Your task to perform on an android device: Show me recent news Image 0: 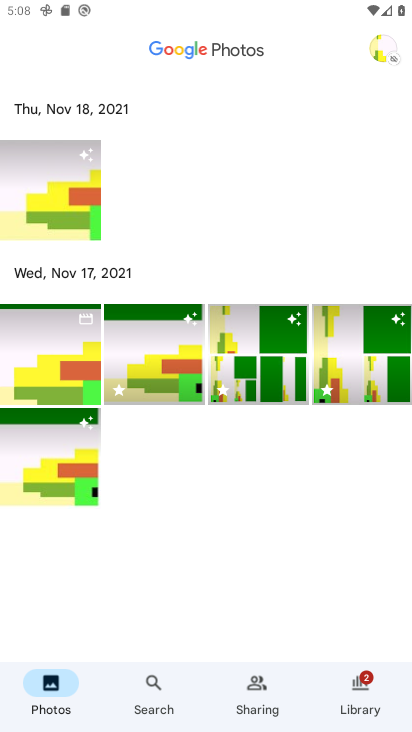
Step 0: press back button
Your task to perform on an android device: Show me recent news Image 1: 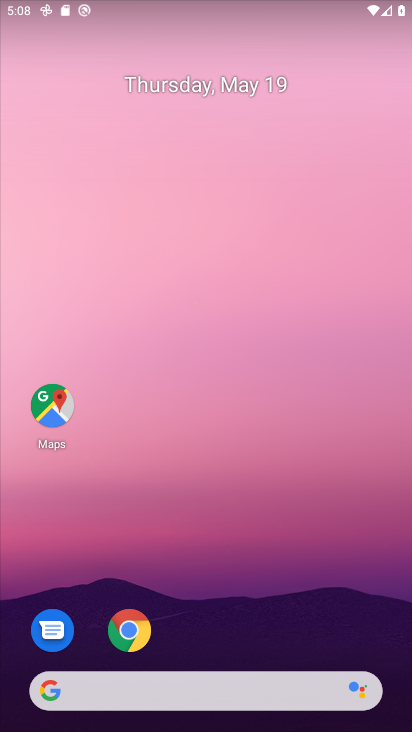
Step 1: drag from (276, 531) to (243, 4)
Your task to perform on an android device: Show me recent news Image 2: 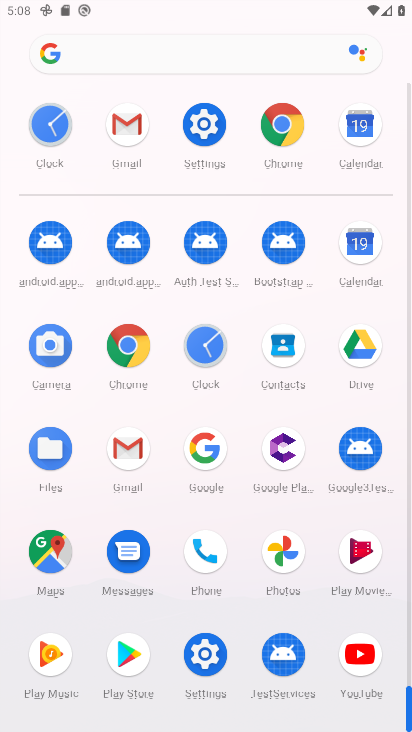
Step 2: click (126, 344)
Your task to perform on an android device: Show me recent news Image 3: 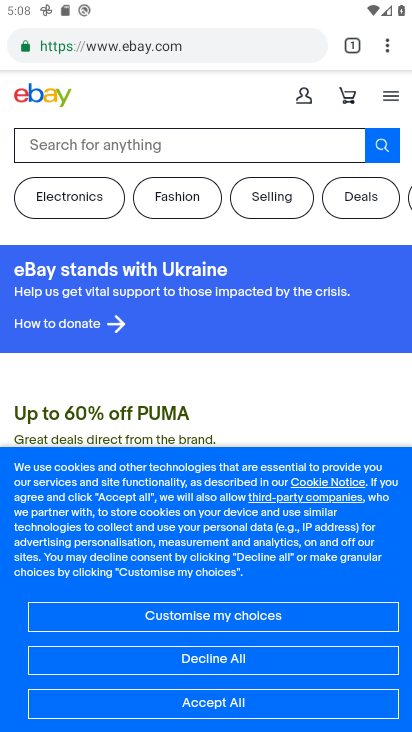
Step 3: click (132, 44)
Your task to perform on an android device: Show me recent news Image 4: 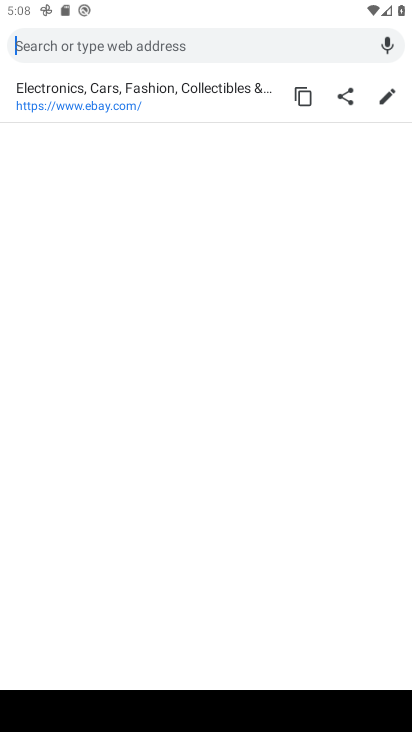
Step 4: type "Show me recent news"
Your task to perform on an android device: Show me recent news Image 5: 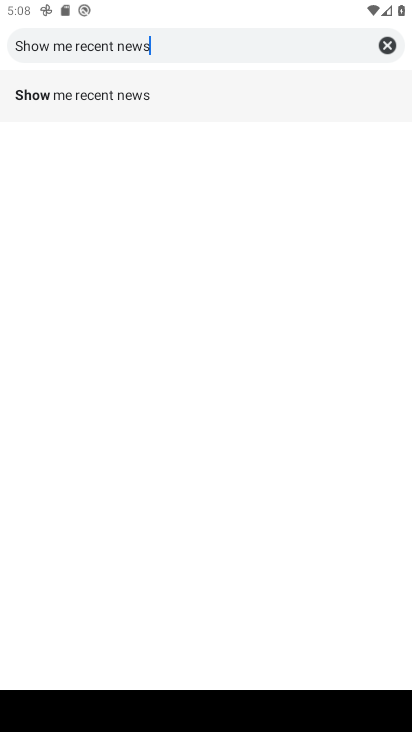
Step 5: type ""
Your task to perform on an android device: Show me recent news Image 6: 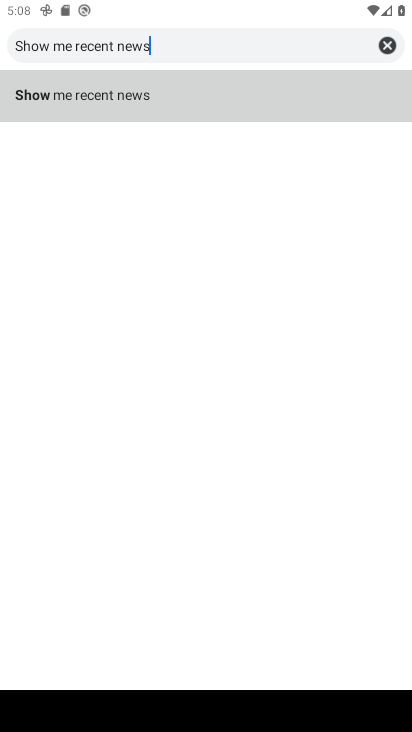
Step 6: click (112, 105)
Your task to perform on an android device: Show me recent news Image 7: 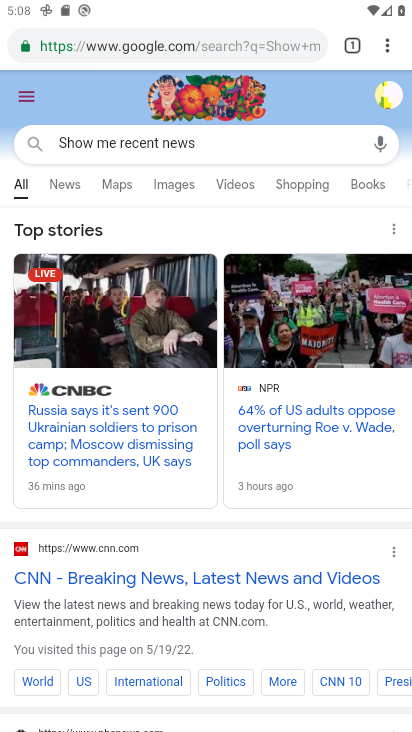
Step 7: click (64, 174)
Your task to perform on an android device: Show me recent news Image 8: 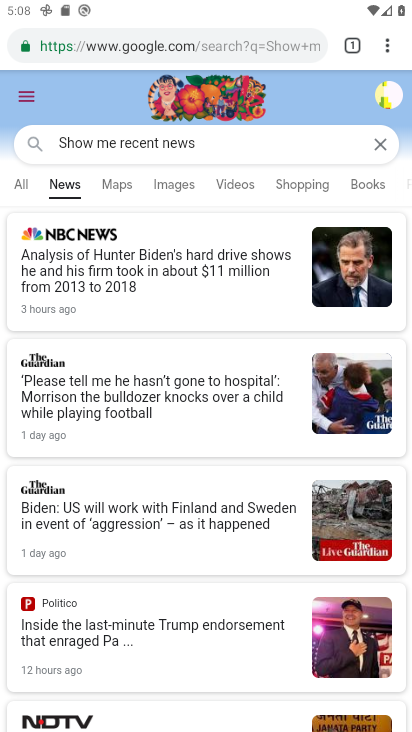
Step 8: task complete